Your task to perform on an android device: Go to calendar. Show me events next week Image 0: 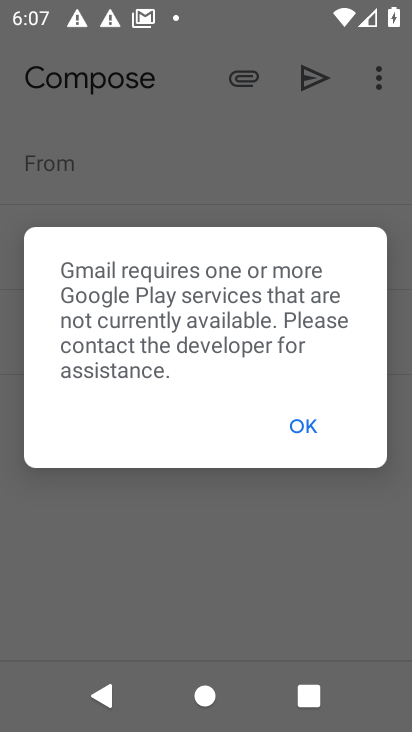
Step 0: press back button
Your task to perform on an android device: Go to calendar. Show me events next week Image 1: 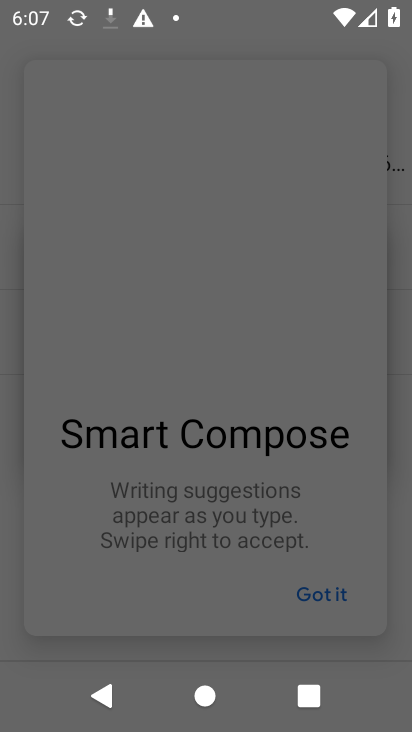
Step 1: press back button
Your task to perform on an android device: Go to calendar. Show me events next week Image 2: 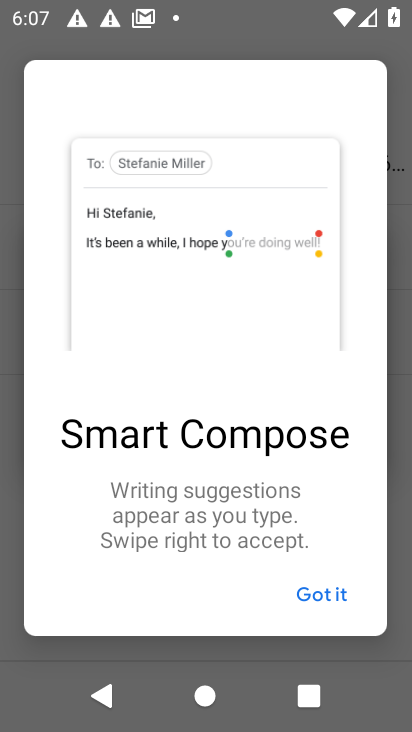
Step 2: press back button
Your task to perform on an android device: Go to calendar. Show me events next week Image 3: 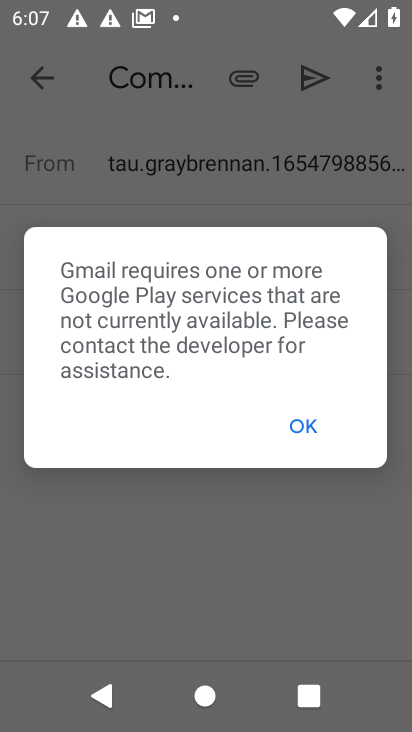
Step 3: press back button
Your task to perform on an android device: Go to calendar. Show me events next week Image 4: 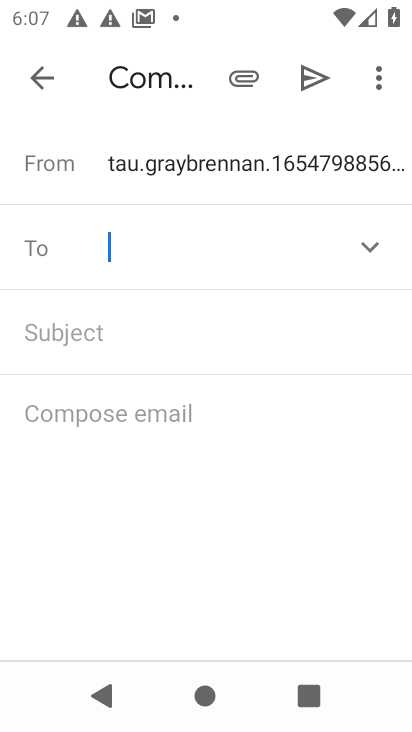
Step 4: press home button
Your task to perform on an android device: Go to calendar. Show me events next week Image 5: 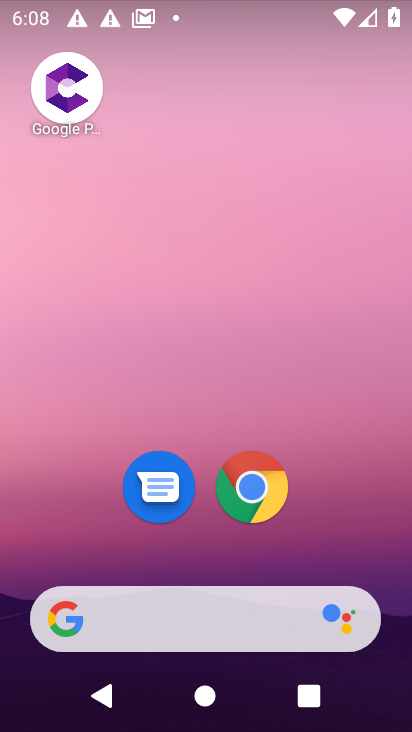
Step 5: drag from (68, 543) to (233, 31)
Your task to perform on an android device: Go to calendar. Show me events next week Image 6: 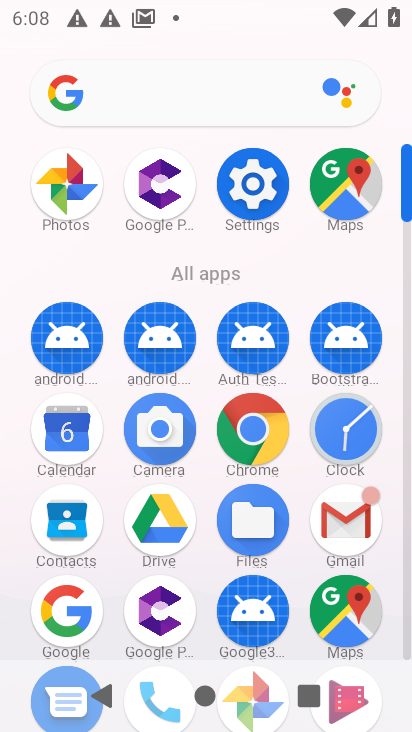
Step 6: click (77, 445)
Your task to perform on an android device: Go to calendar. Show me events next week Image 7: 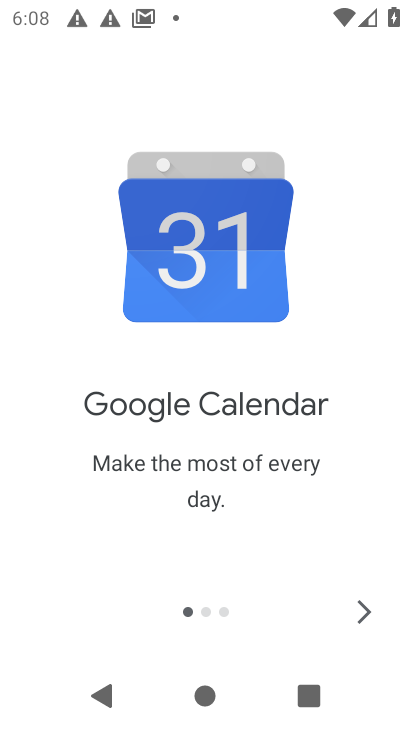
Step 7: click (366, 601)
Your task to perform on an android device: Go to calendar. Show me events next week Image 8: 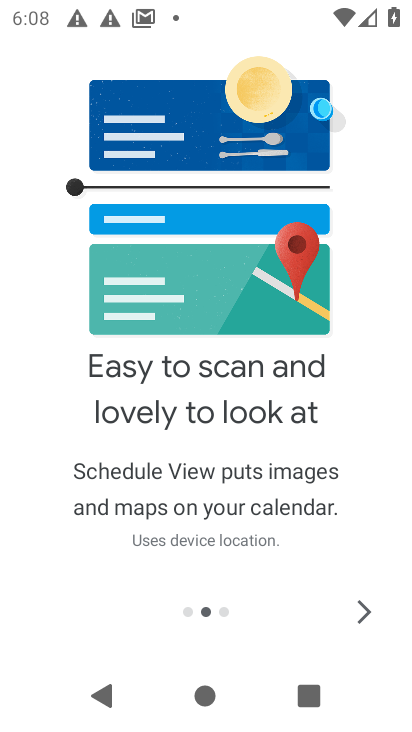
Step 8: click (347, 606)
Your task to perform on an android device: Go to calendar. Show me events next week Image 9: 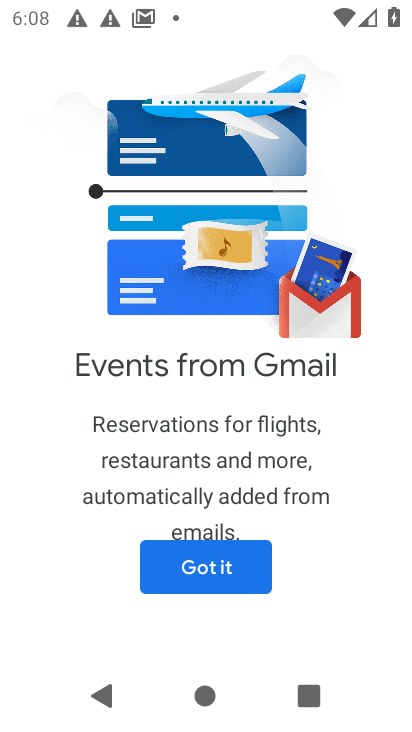
Step 9: click (214, 576)
Your task to perform on an android device: Go to calendar. Show me events next week Image 10: 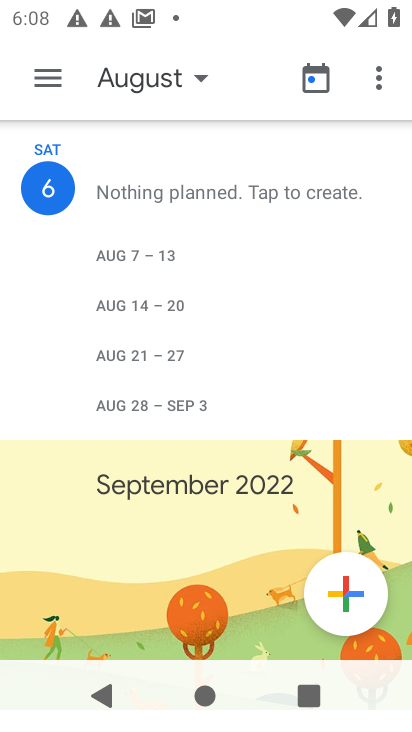
Step 10: click (174, 72)
Your task to perform on an android device: Go to calendar. Show me events next week Image 11: 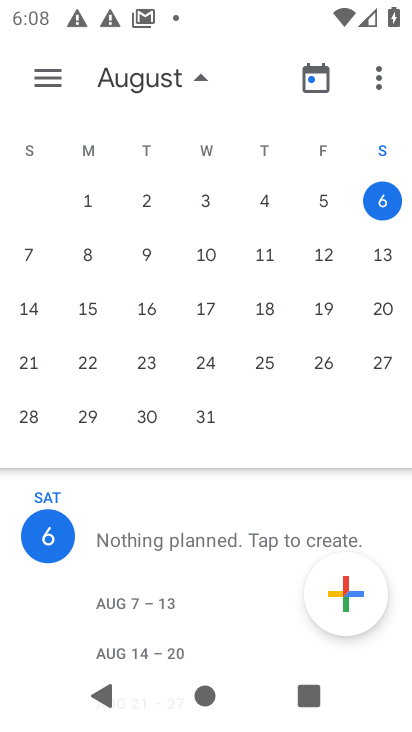
Step 11: click (76, 309)
Your task to perform on an android device: Go to calendar. Show me events next week Image 12: 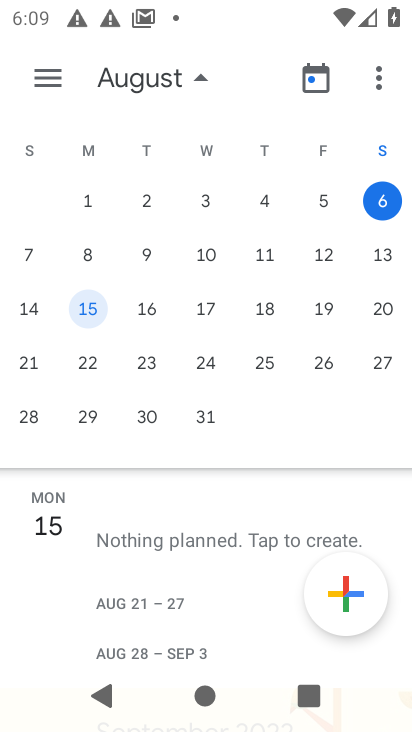
Step 12: click (93, 256)
Your task to perform on an android device: Go to calendar. Show me events next week Image 13: 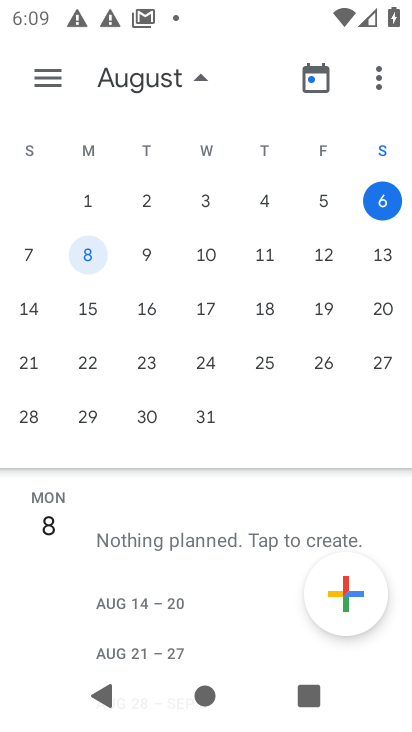
Step 13: task complete